Your task to perform on an android device: What's the weather? Image 0: 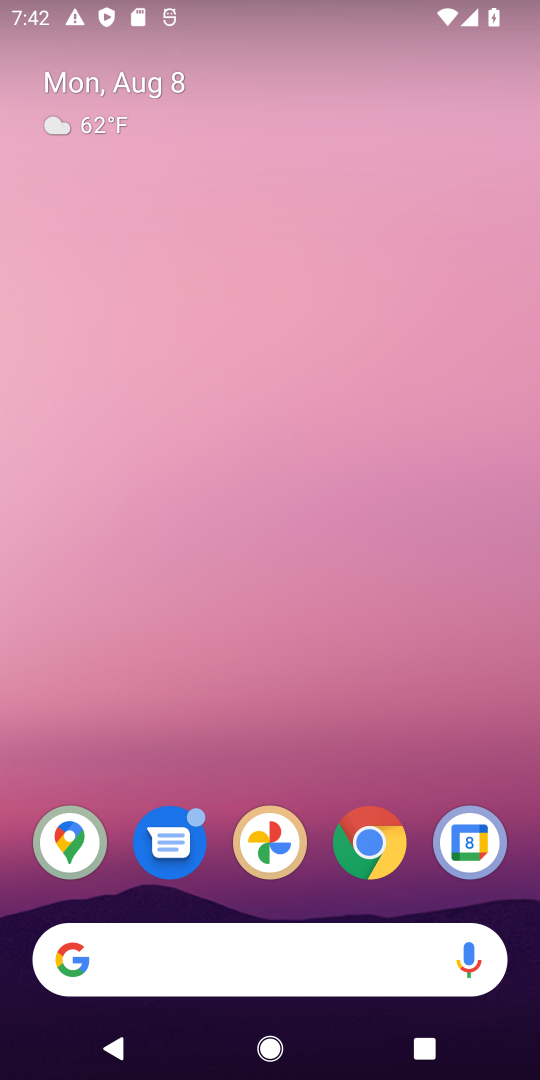
Step 0: drag from (1, 391) to (524, 303)
Your task to perform on an android device: What's the weather? Image 1: 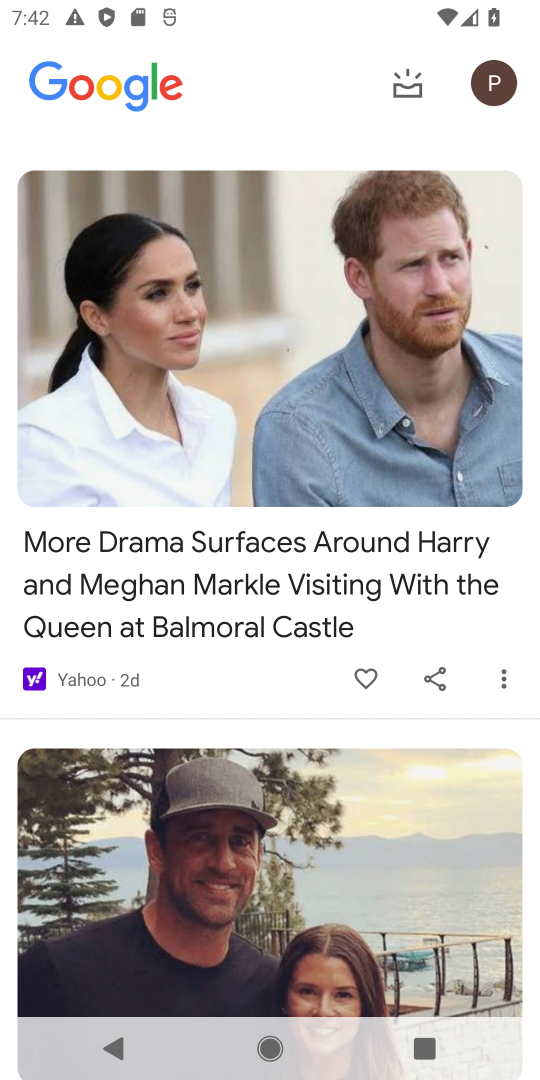
Step 1: drag from (268, 869) to (344, 421)
Your task to perform on an android device: What's the weather? Image 2: 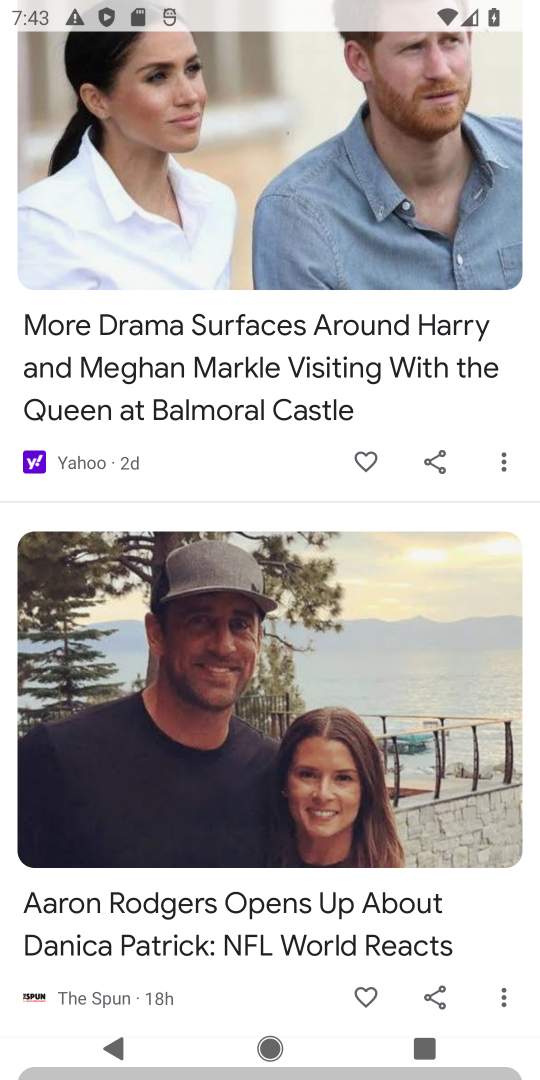
Step 2: drag from (391, 580) to (402, 851)
Your task to perform on an android device: What's the weather? Image 3: 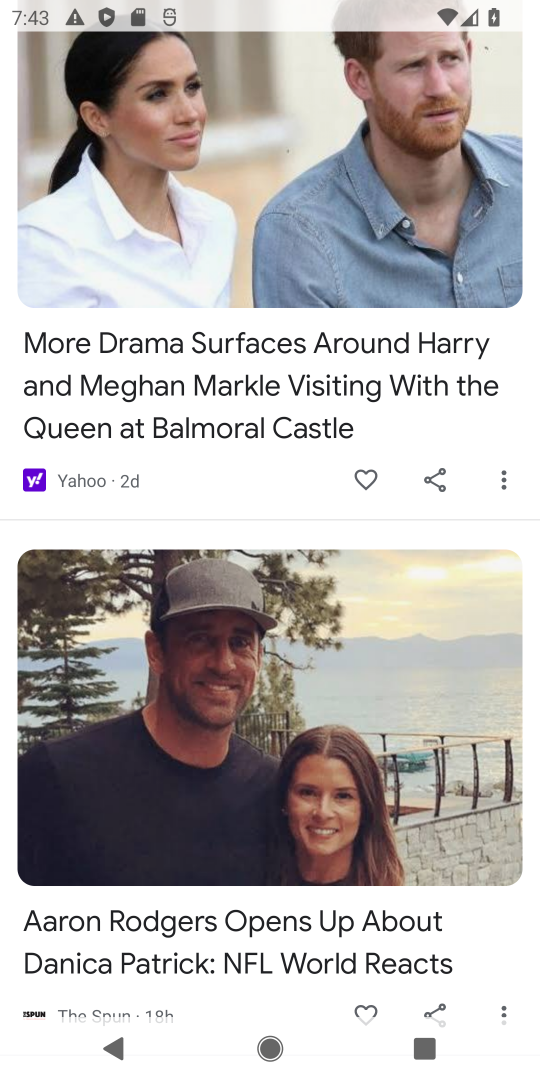
Step 3: drag from (336, 327) to (364, 849)
Your task to perform on an android device: What's the weather? Image 4: 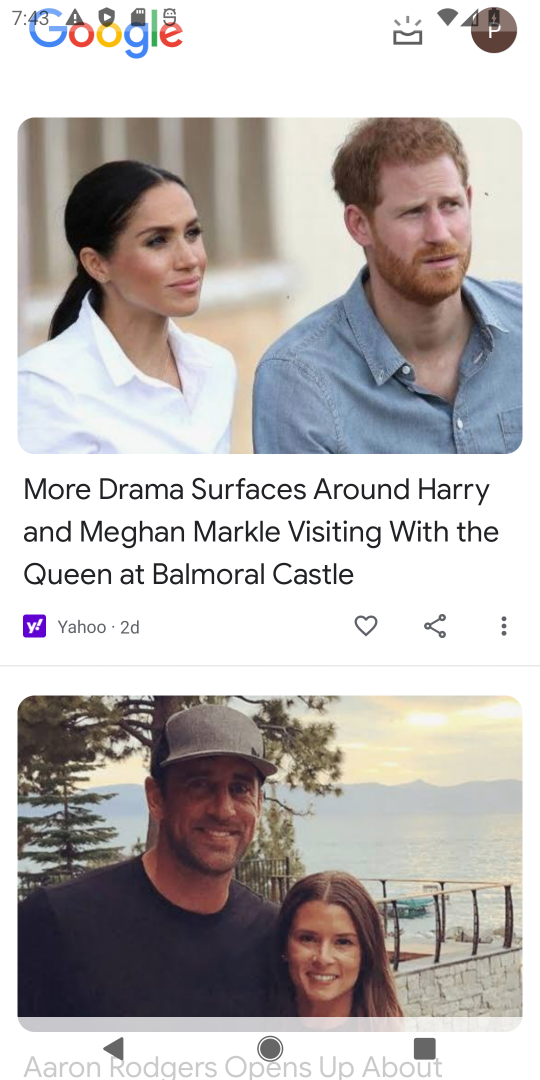
Step 4: drag from (331, 500) to (368, 921)
Your task to perform on an android device: What's the weather? Image 5: 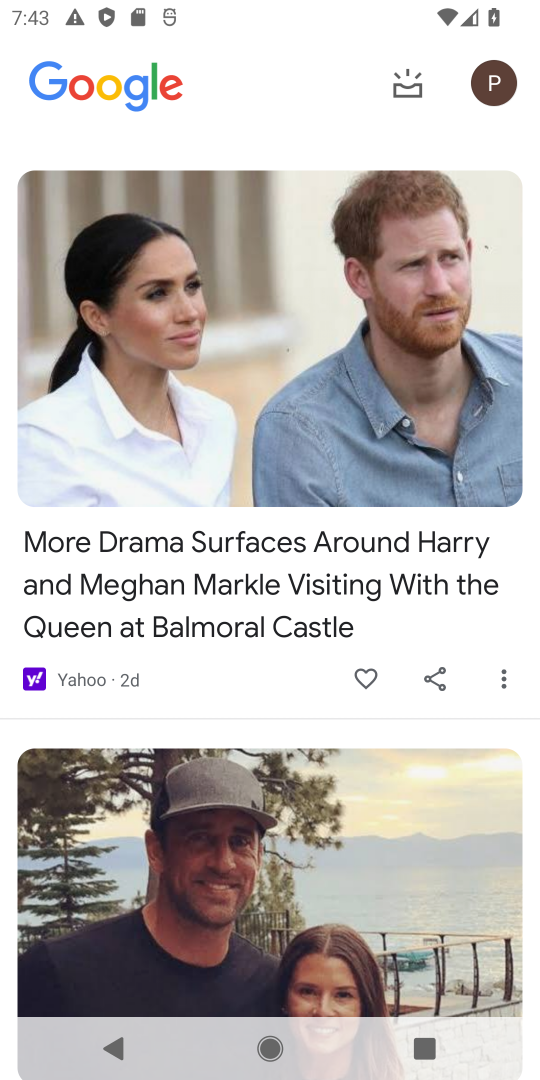
Step 5: click (324, 575)
Your task to perform on an android device: What's the weather? Image 6: 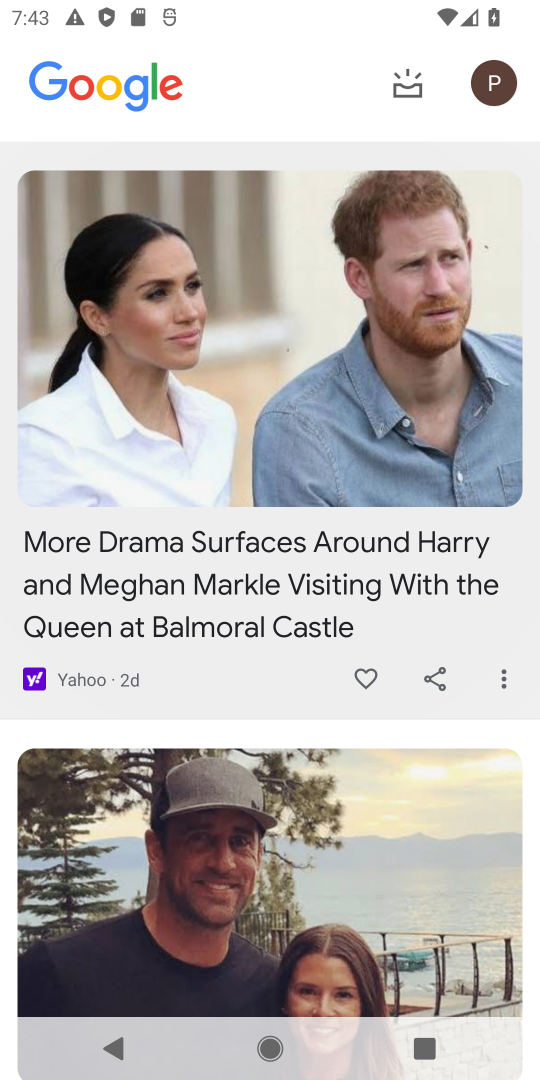
Step 6: task complete